Your task to perform on an android device: check battery use Image 0: 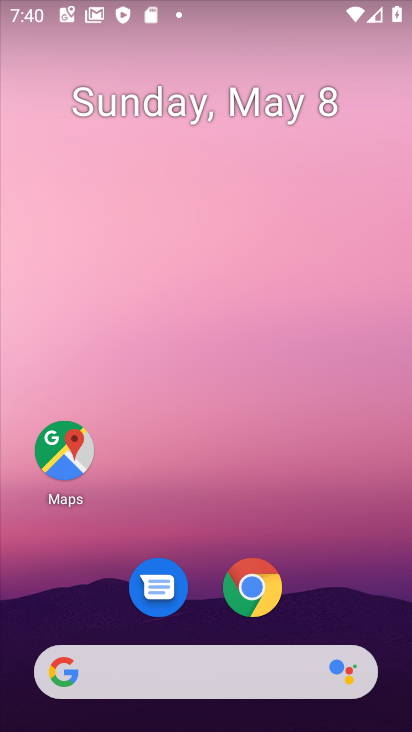
Step 0: drag from (199, 531) to (185, 17)
Your task to perform on an android device: check battery use Image 1: 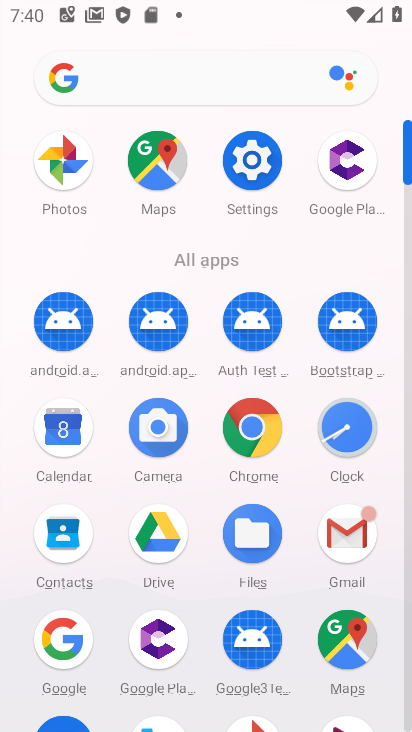
Step 1: click (251, 160)
Your task to perform on an android device: check battery use Image 2: 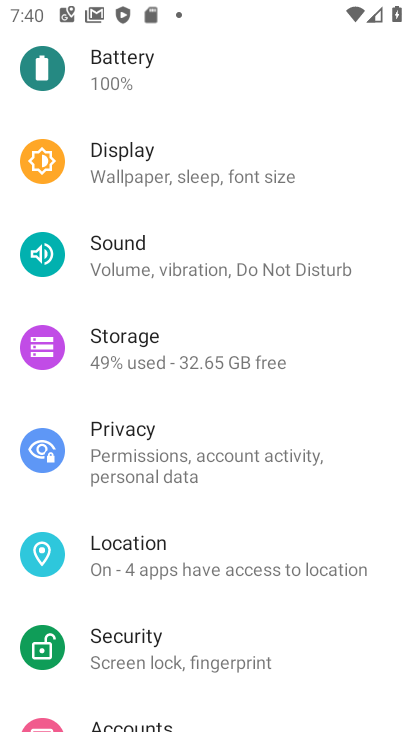
Step 2: drag from (183, 248) to (193, 358)
Your task to perform on an android device: check battery use Image 3: 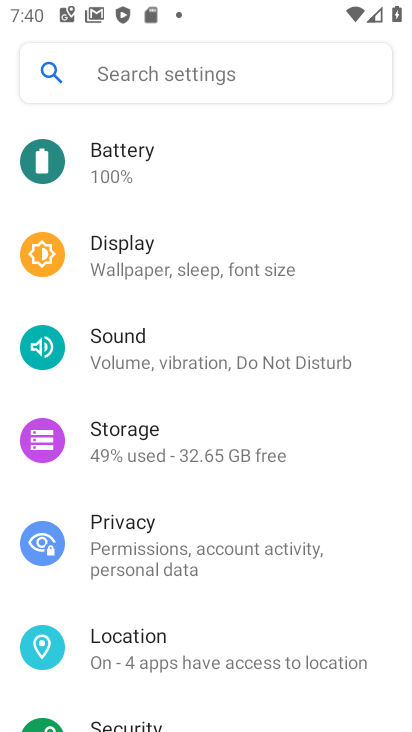
Step 3: click (131, 148)
Your task to perform on an android device: check battery use Image 4: 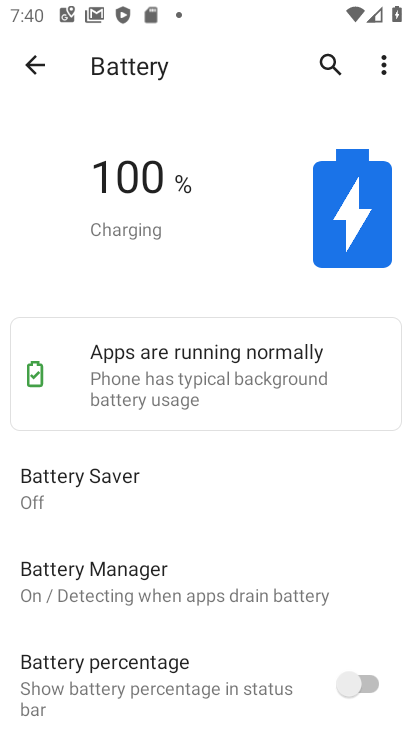
Step 4: click (384, 66)
Your task to perform on an android device: check battery use Image 5: 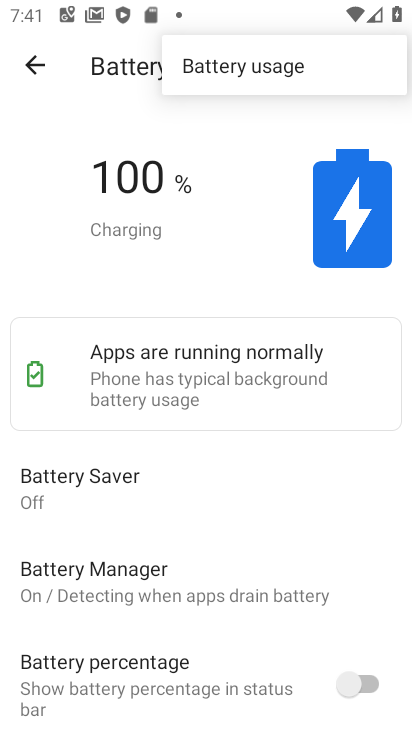
Step 5: click (238, 69)
Your task to perform on an android device: check battery use Image 6: 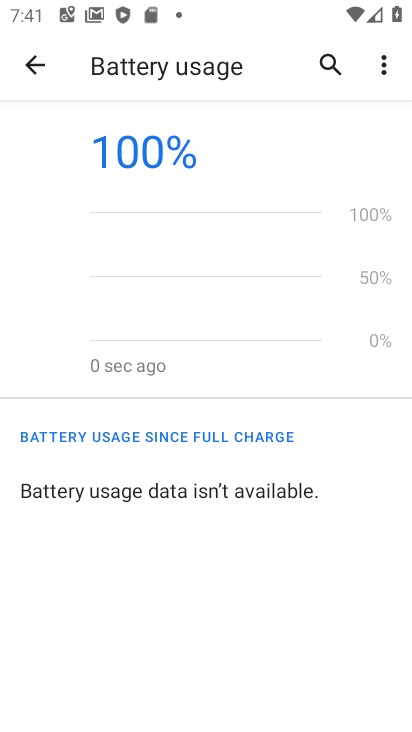
Step 6: task complete